Your task to perform on an android device: Open maps Image 0: 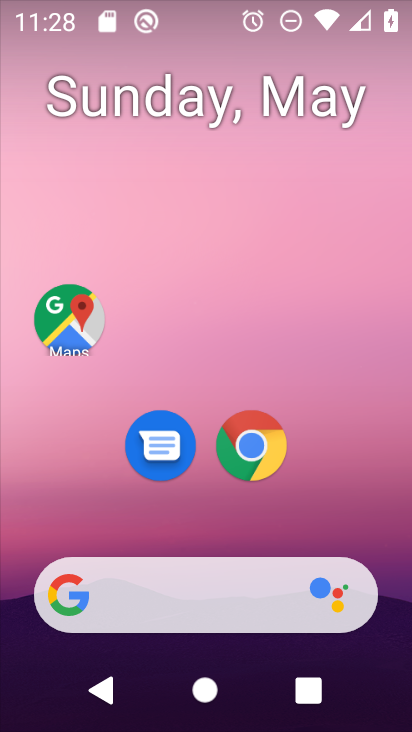
Step 0: drag from (254, 542) to (257, 234)
Your task to perform on an android device: Open maps Image 1: 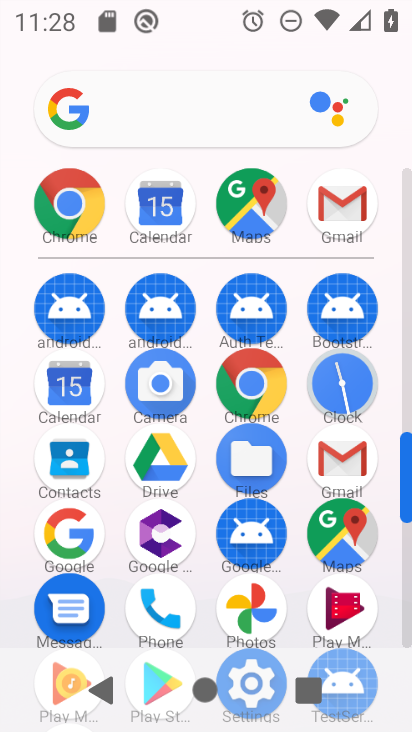
Step 1: click (268, 204)
Your task to perform on an android device: Open maps Image 2: 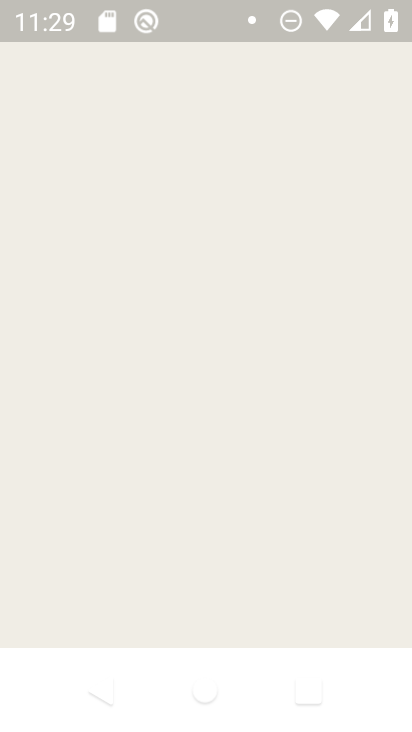
Step 2: press home button
Your task to perform on an android device: Open maps Image 3: 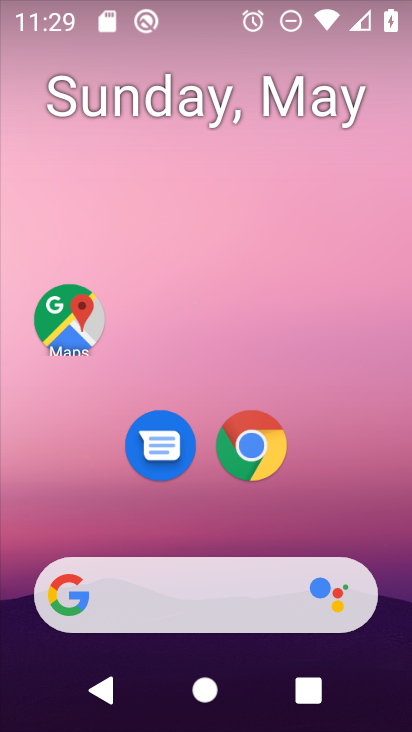
Step 3: click (90, 326)
Your task to perform on an android device: Open maps Image 4: 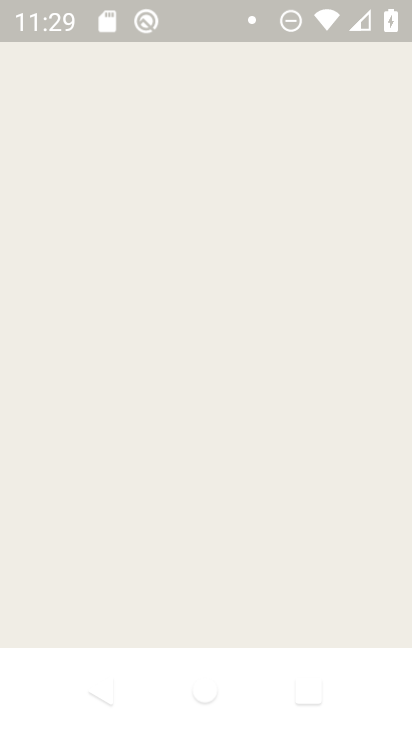
Step 4: task complete